Your task to perform on an android device: change the clock display to digital Image 0: 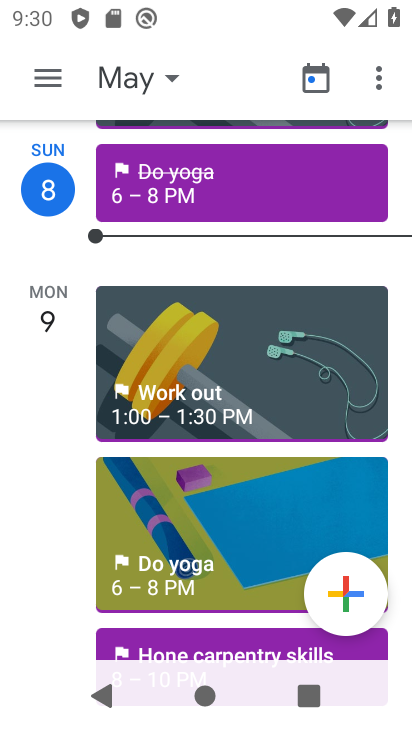
Step 0: press home button
Your task to perform on an android device: change the clock display to digital Image 1: 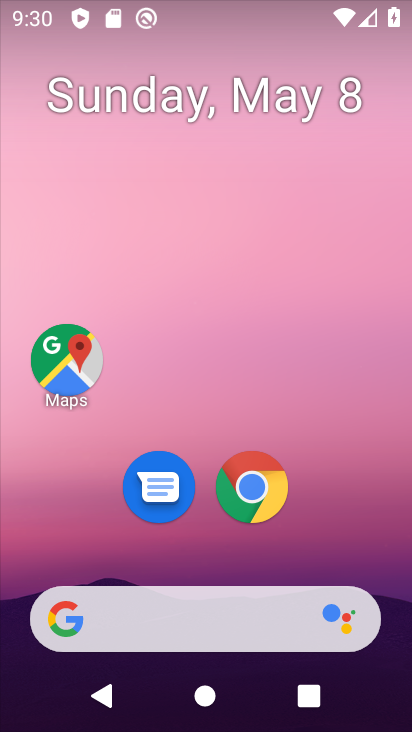
Step 1: drag from (172, 580) to (202, 308)
Your task to perform on an android device: change the clock display to digital Image 2: 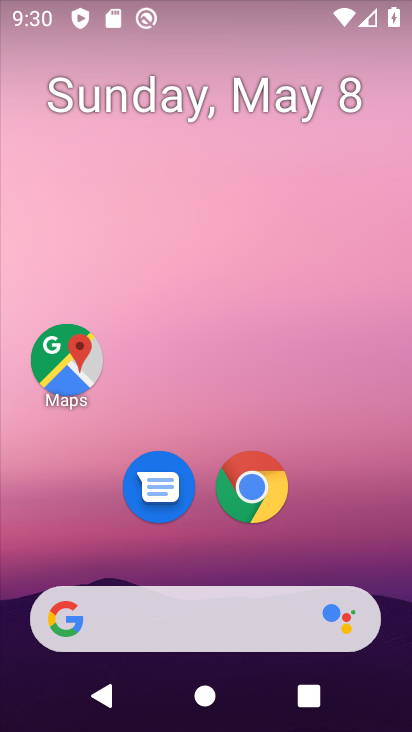
Step 2: drag from (193, 573) to (282, 127)
Your task to perform on an android device: change the clock display to digital Image 3: 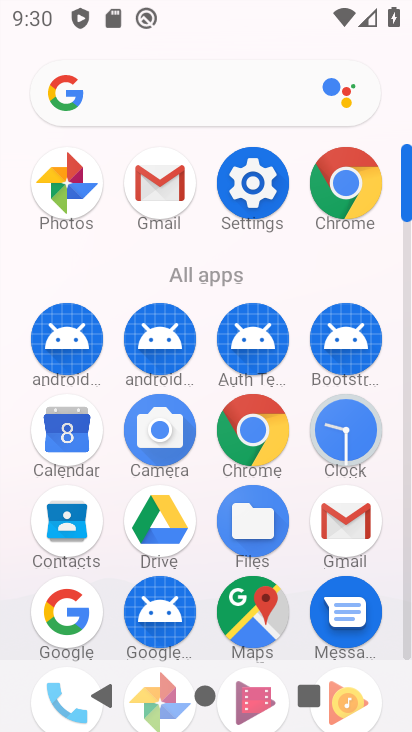
Step 3: click (357, 442)
Your task to perform on an android device: change the clock display to digital Image 4: 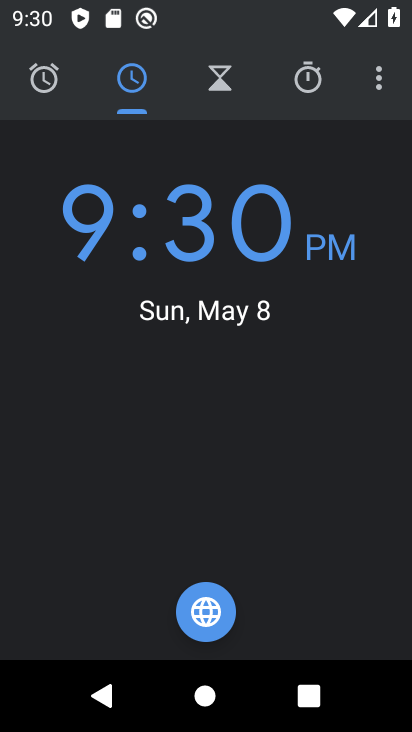
Step 4: click (383, 76)
Your task to perform on an android device: change the clock display to digital Image 5: 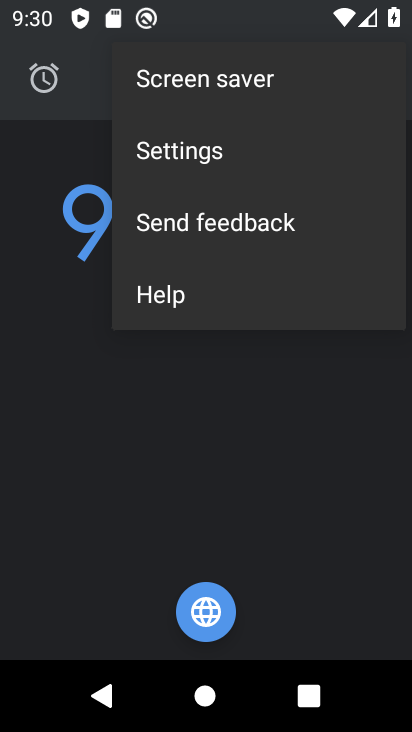
Step 5: click (349, 166)
Your task to perform on an android device: change the clock display to digital Image 6: 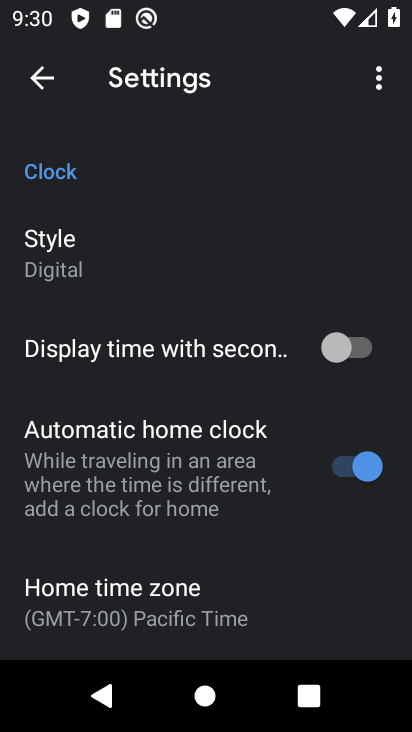
Step 6: click (271, 280)
Your task to perform on an android device: change the clock display to digital Image 7: 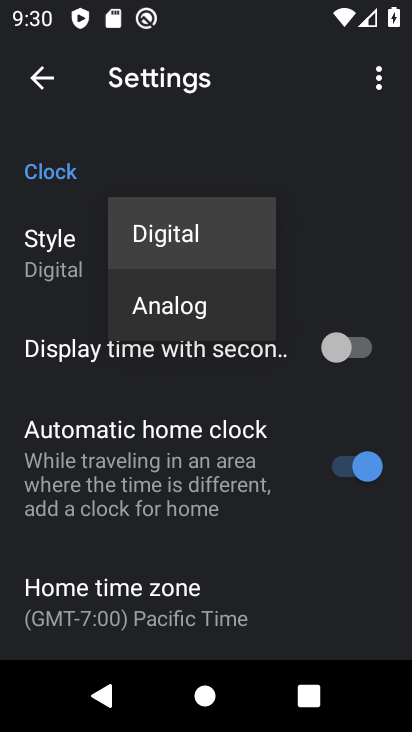
Step 7: task complete